Your task to perform on an android device: Is it going to rain today? Image 0: 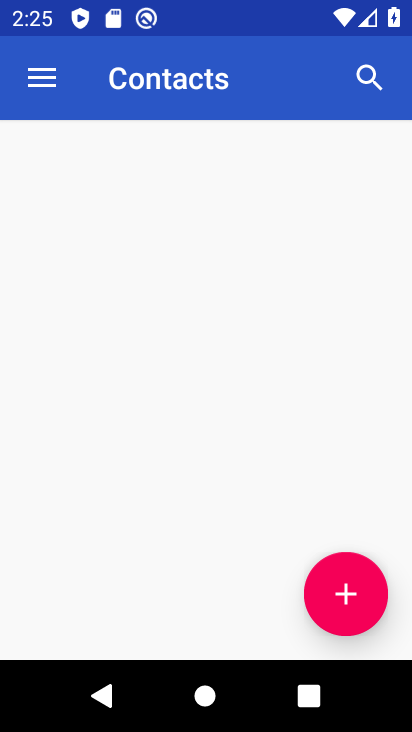
Step 0: press home button
Your task to perform on an android device: Is it going to rain today? Image 1: 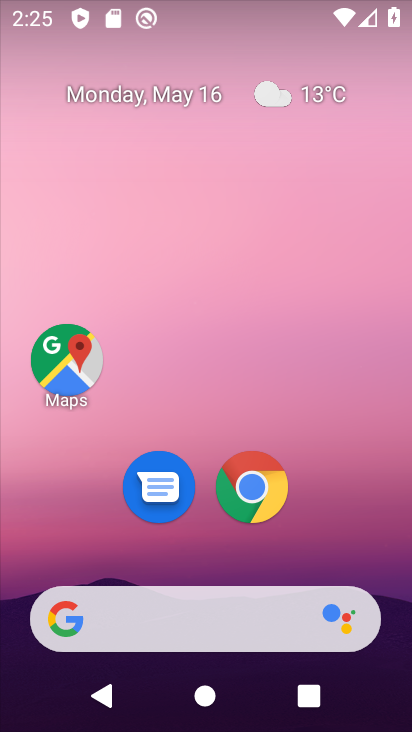
Step 1: drag from (304, 537) to (115, 87)
Your task to perform on an android device: Is it going to rain today? Image 2: 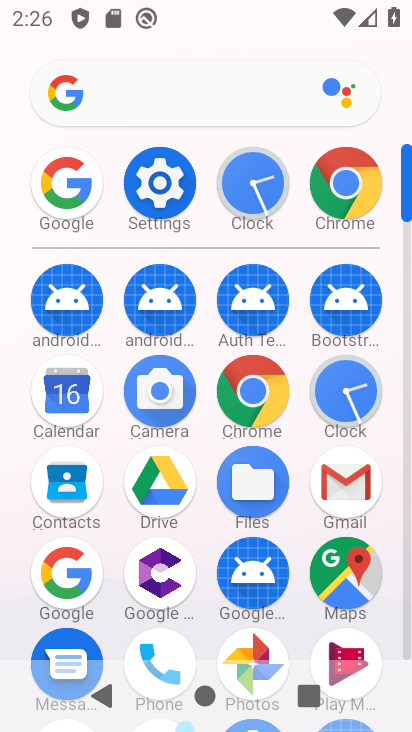
Step 2: click (240, 401)
Your task to perform on an android device: Is it going to rain today? Image 3: 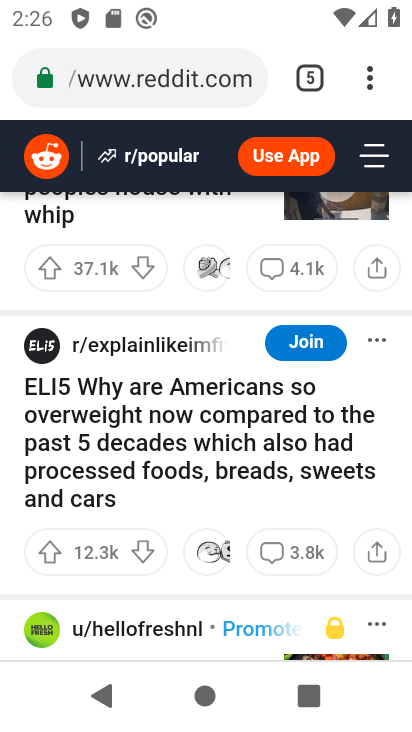
Step 3: click (327, 66)
Your task to perform on an android device: Is it going to rain today? Image 4: 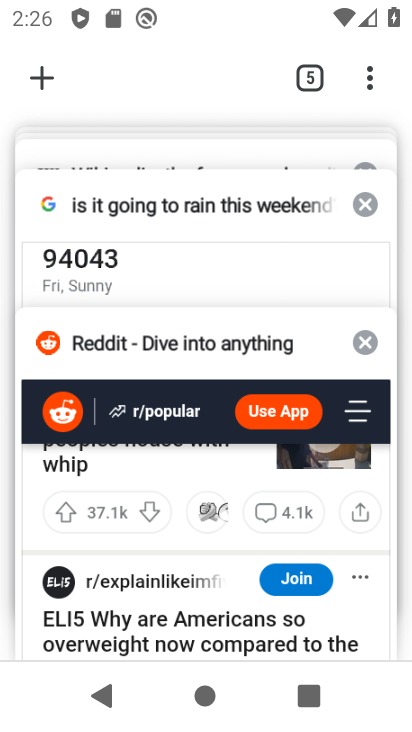
Step 4: drag from (208, 205) to (168, 435)
Your task to perform on an android device: Is it going to rain today? Image 5: 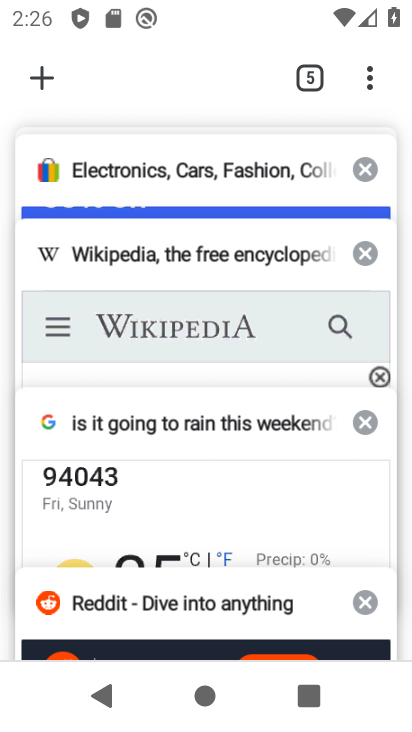
Step 5: drag from (114, 197) to (118, 145)
Your task to perform on an android device: Is it going to rain today? Image 6: 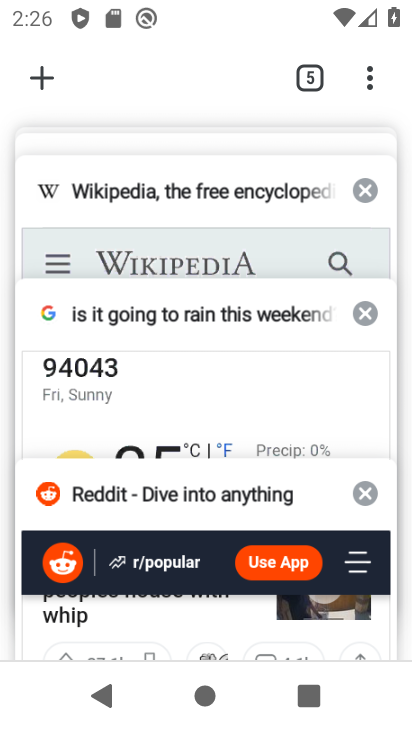
Step 6: click (41, 81)
Your task to perform on an android device: Is it going to rain today? Image 7: 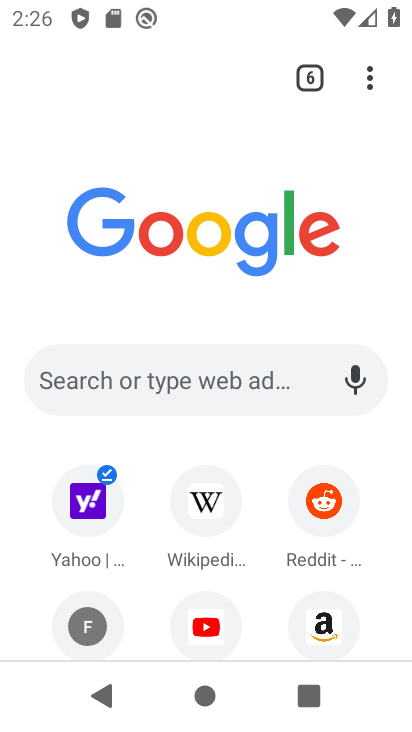
Step 7: click (163, 381)
Your task to perform on an android device: Is it going to rain today? Image 8: 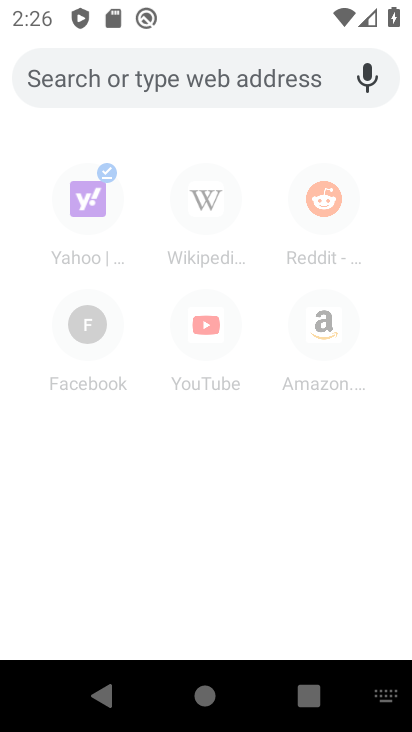
Step 8: type "is it going to rain today?"
Your task to perform on an android device: Is it going to rain today? Image 9: 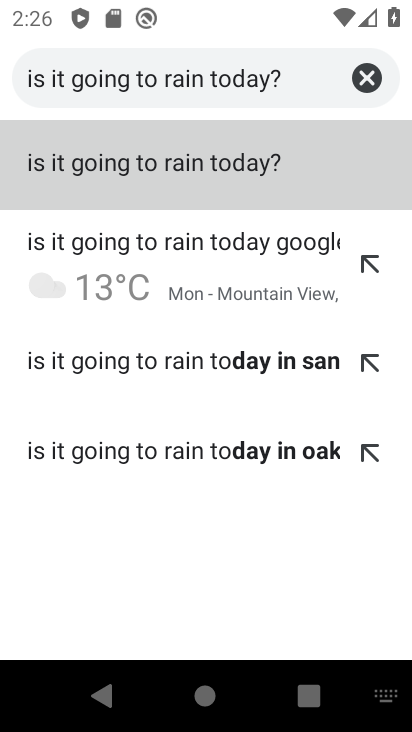
Step 9: click (239, 181)
Your task to perform on an android device: Is it going to rain today? Image 10: 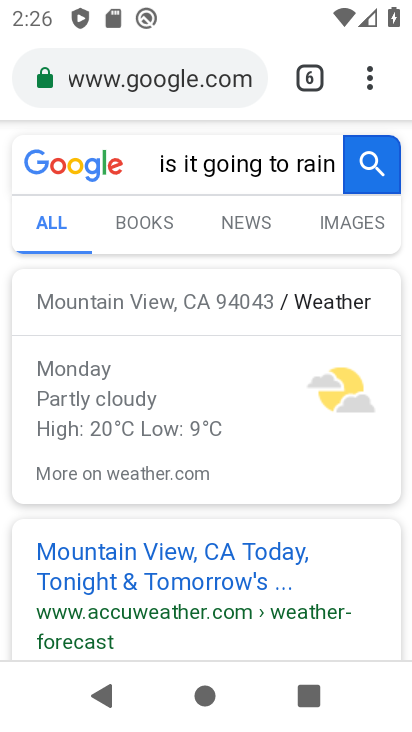
Step 10: task complete